Your task to perform on an android device: Open Amazon Image 0: 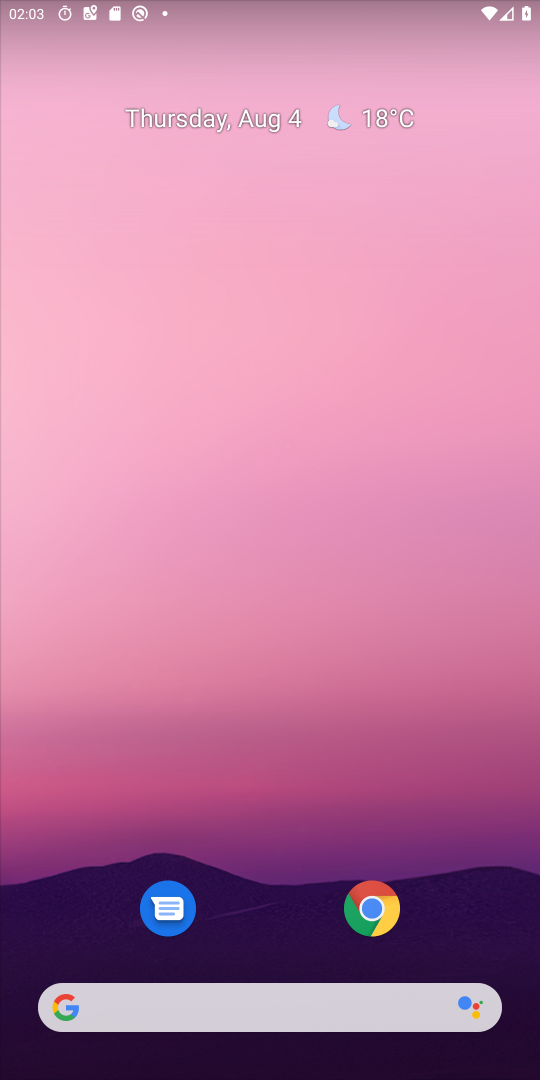
Step 0: press home button
Your task to perform on an android device: Open Amazon Image 1: 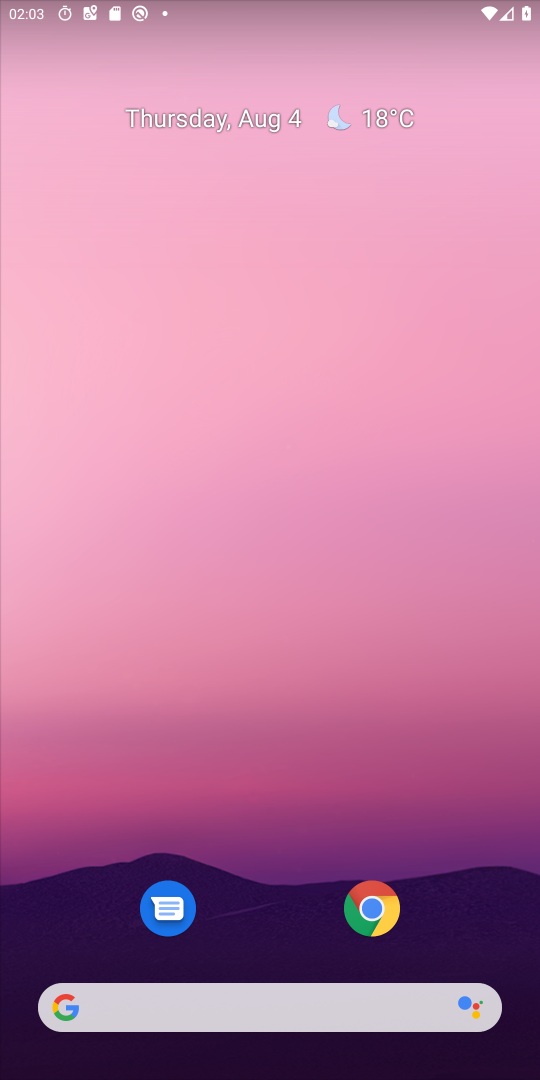
Step 1: drag from (323, 896) to (247, 344)
Your task to perform on an android device: Open Amazon Image 2: 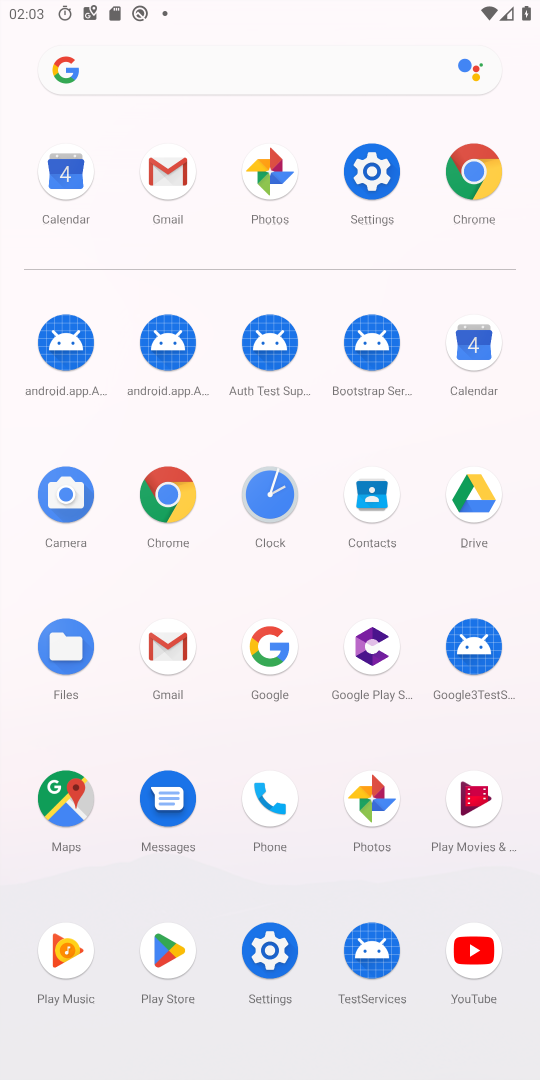
Step 2: click (175, 507)
Your task to perform on an android device: Open Amazon Image 3: 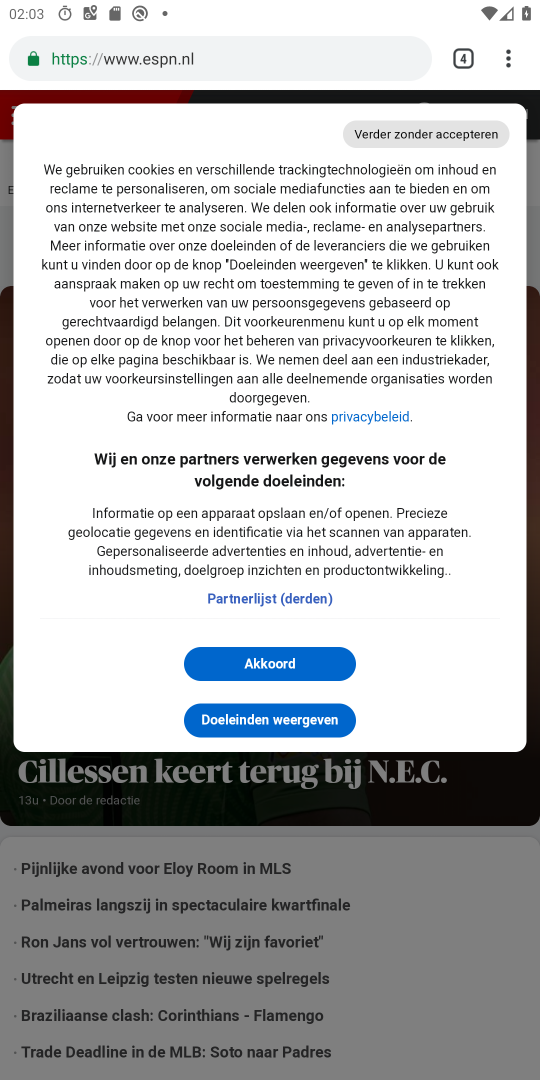
Step 3: click (221, 670)
Your task to perform on an android device: Open Amazon Image 4: 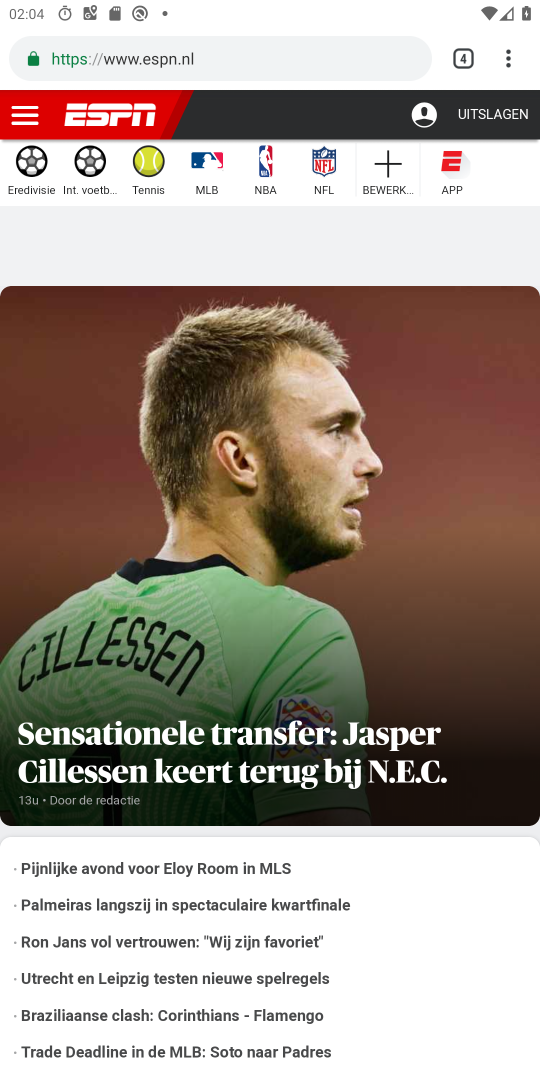
Step 4: click (446, 69)
Your task to perform on an android device: Open Amazon Image 5: 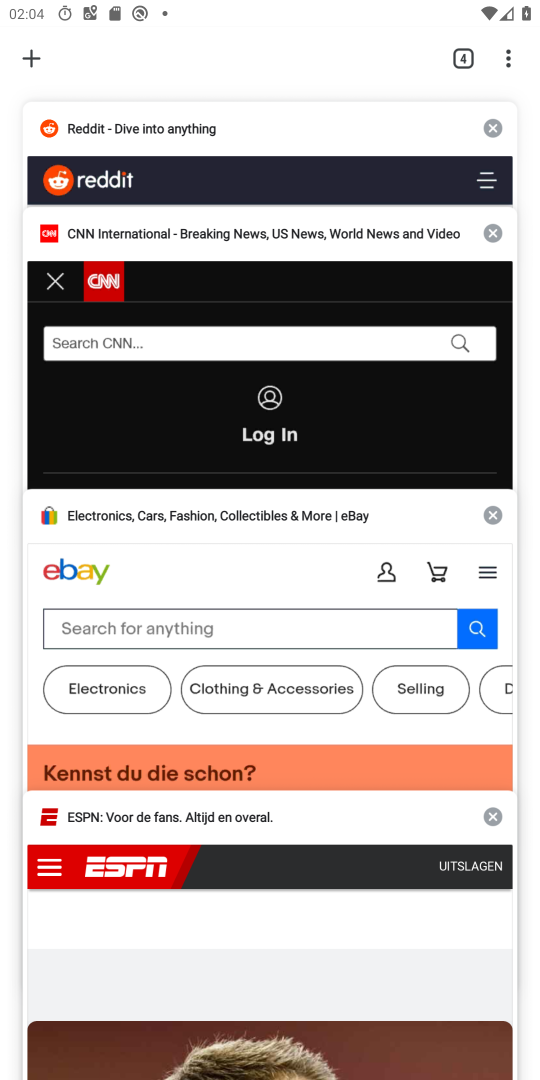
Step 5: click (36, 49)
Your task to perform on an android device: Open Amazon Image 6: 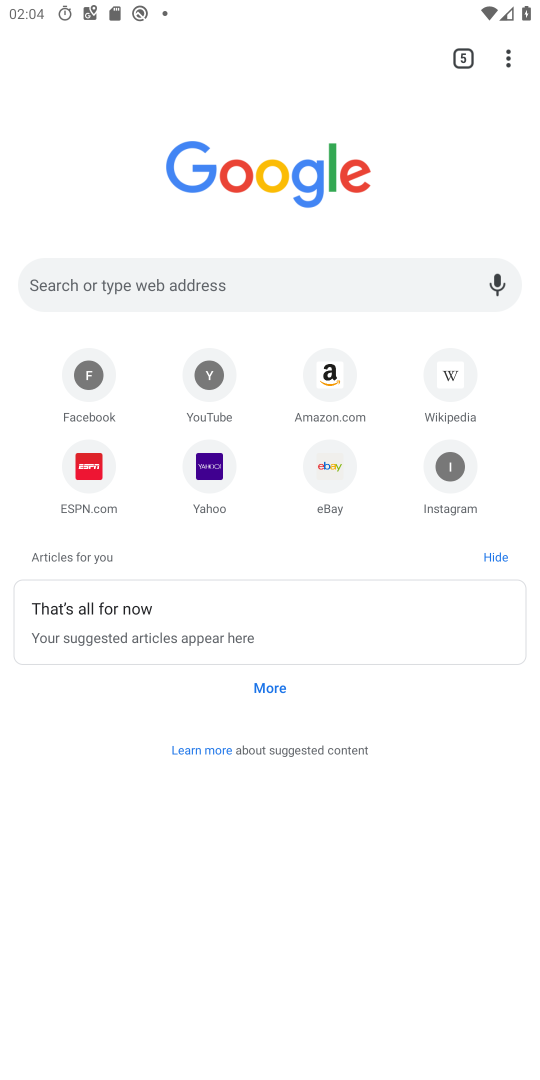
Step 6: click (357, 385)
Your task to perform on an android device: Open Amazon Image 7: 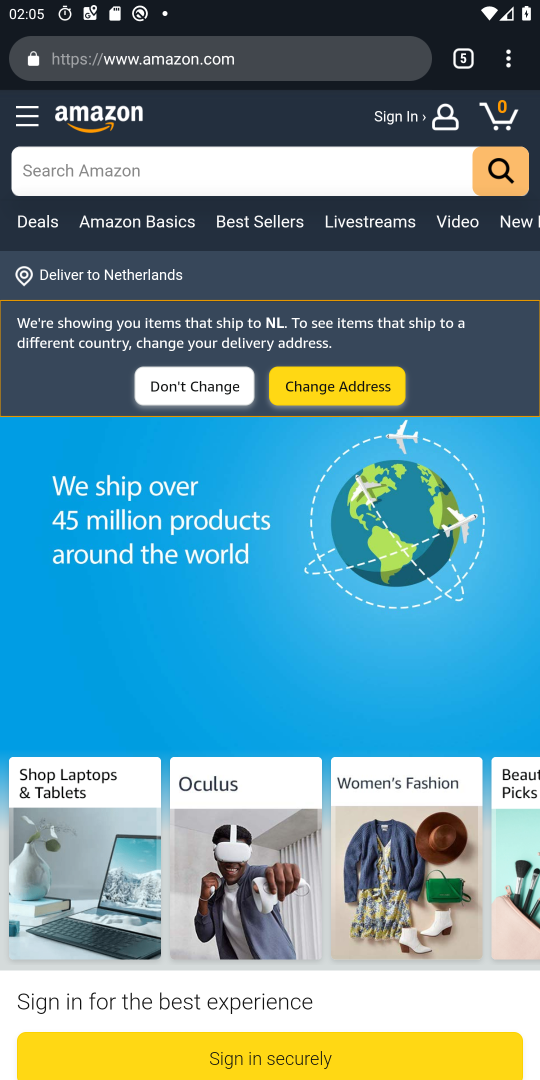
Step 7: task complete